Your task to perform on an android device: Show me recent news Image 0: 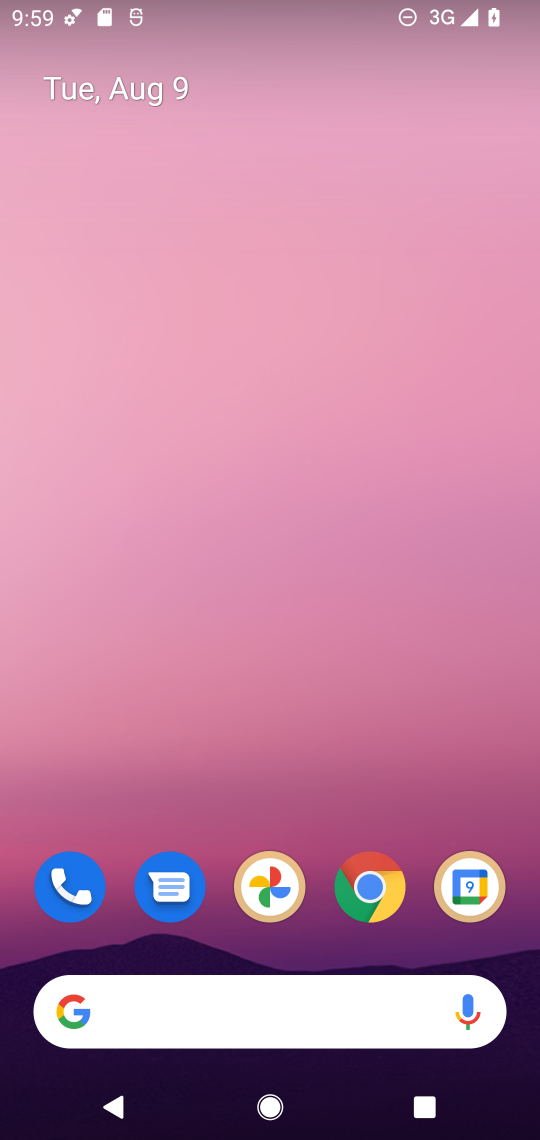
Step 0: drag from (334, 811) to (259, 52)
Your task to perform on an android device: Show me recent news Image 1: 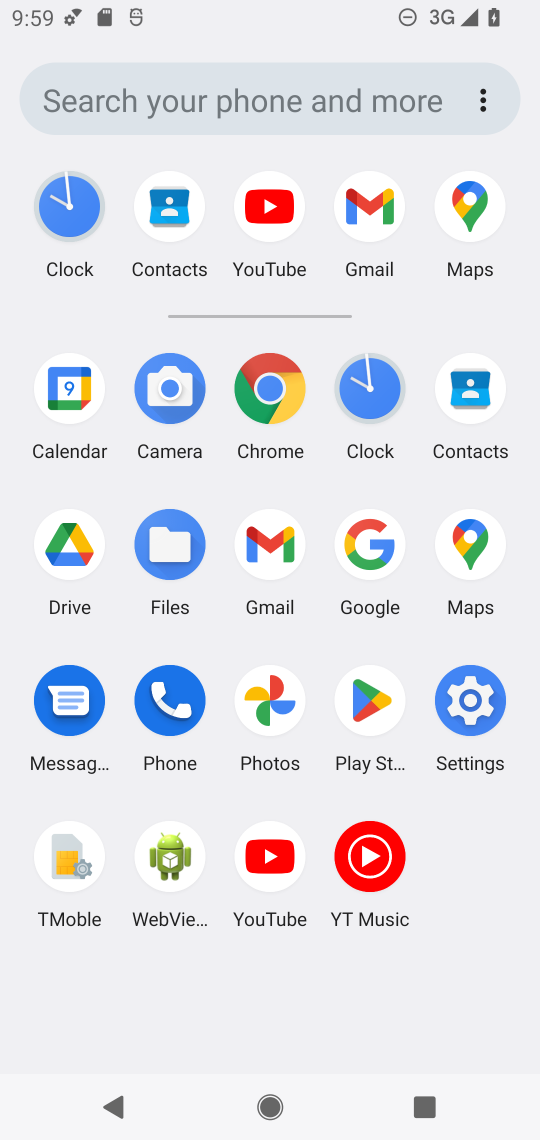
Step 1: click (366, 535)
Your task to perform on an android device: Show me recent news Image 2: 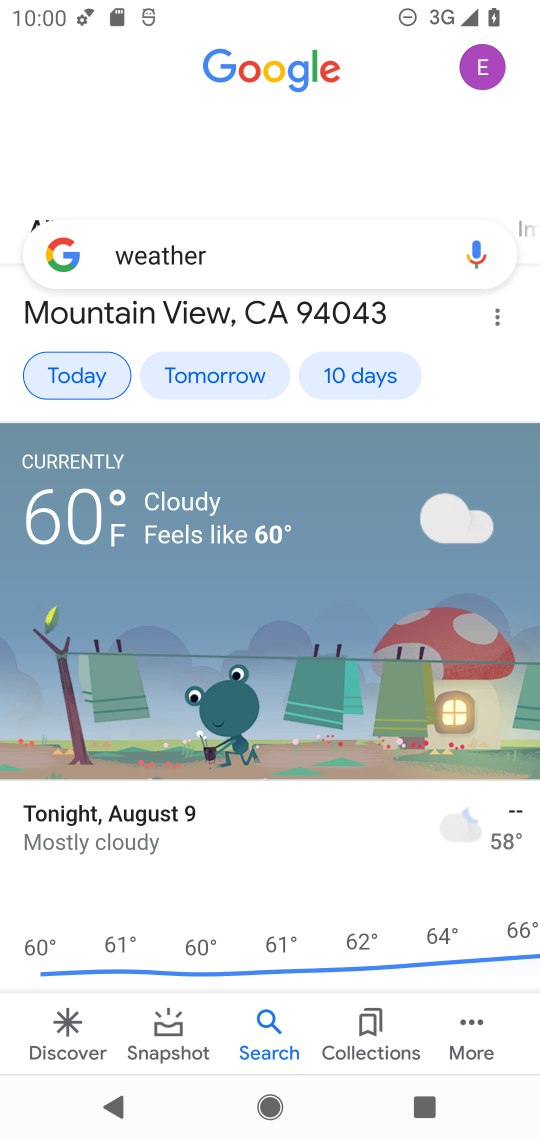
Step 2: click (215, 245)
Your task to perform on an android device: Show me recent news Image 3: 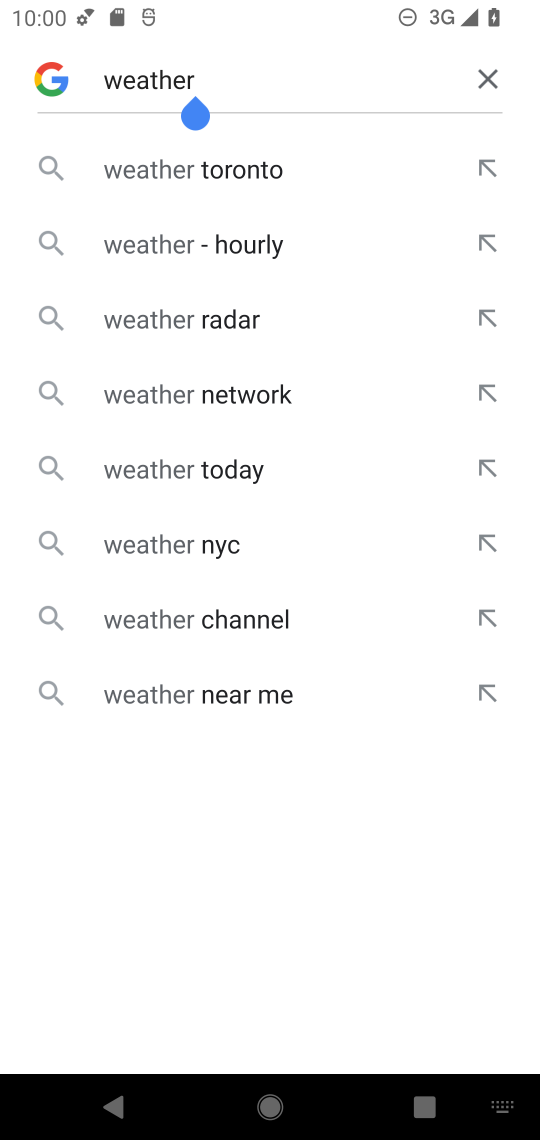
Step 3: click (475, 79)
Your task to perform on an android device: Show me recent news Image 4: 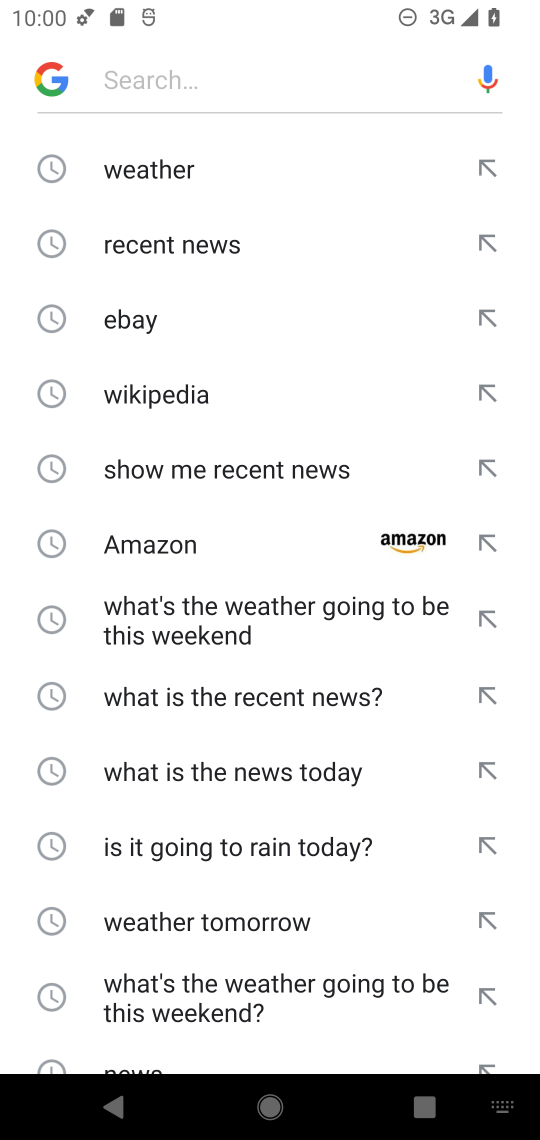
Step 4: click (232, 247)
Your task to perform on an android device: Show me recent news Image 5: 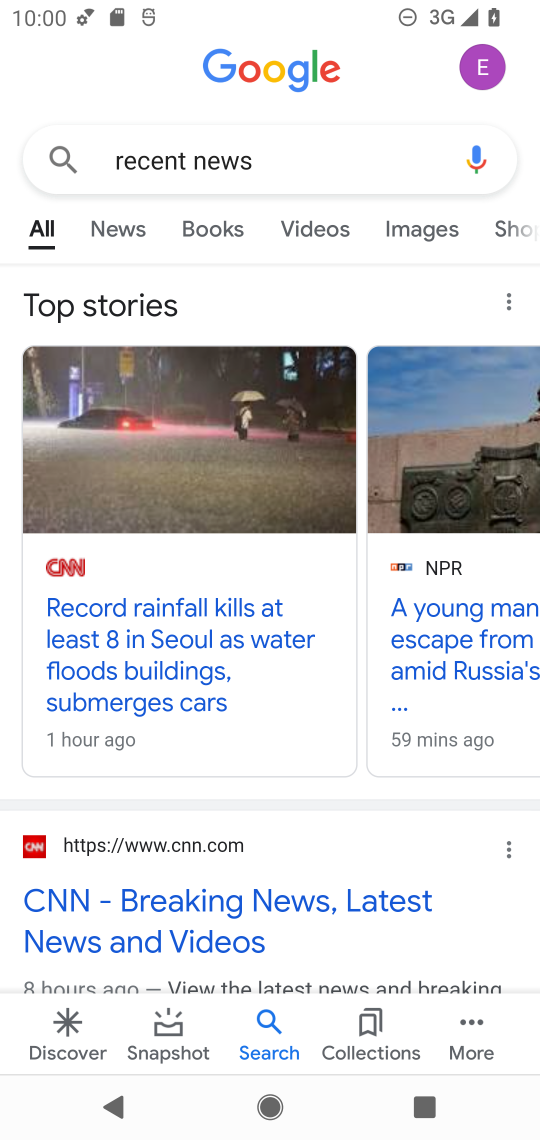
Step 5: click (139, 228)
Your task to perform on an android device: Show me recent news Image 6: 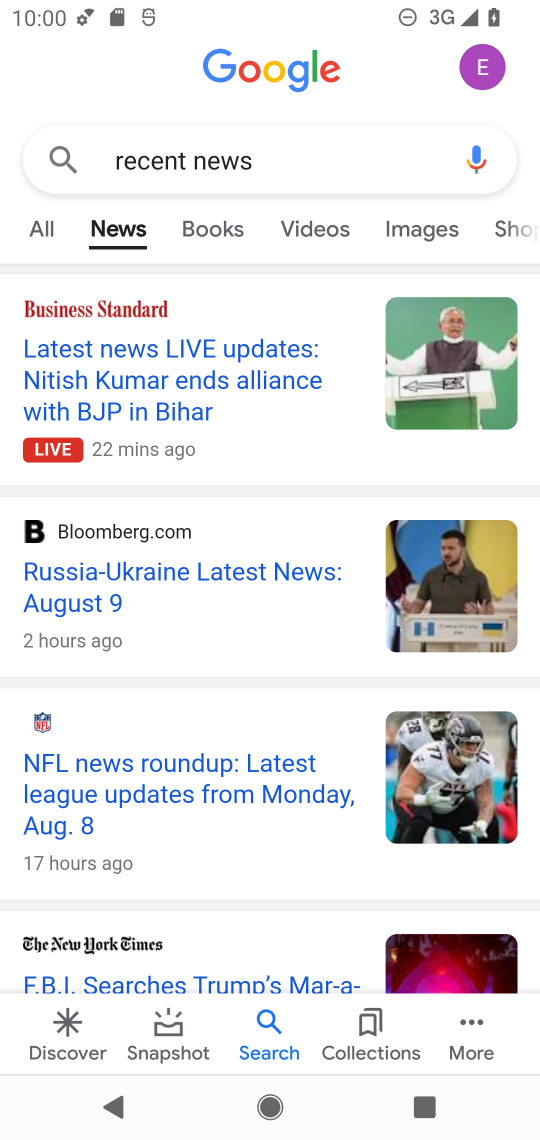
Step 6: task complete